Your task to perform on an android device: set default search engine in the chrome app Image 0: 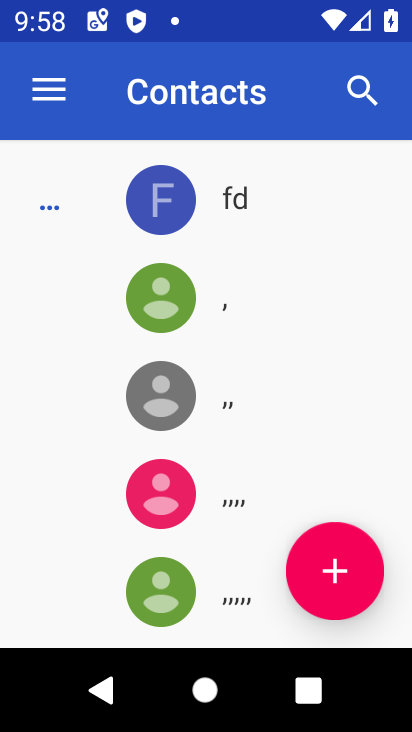
Step 0: press home button
Your task to perform on an android device: set default search engine in the chrome app Image 1: 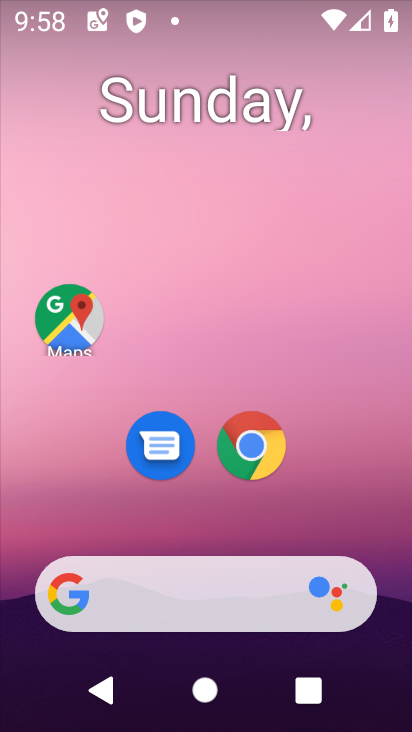
Step 1: click (240, 466)
Your task to perform on an android device: set default search engine in the chrome app Image 2: 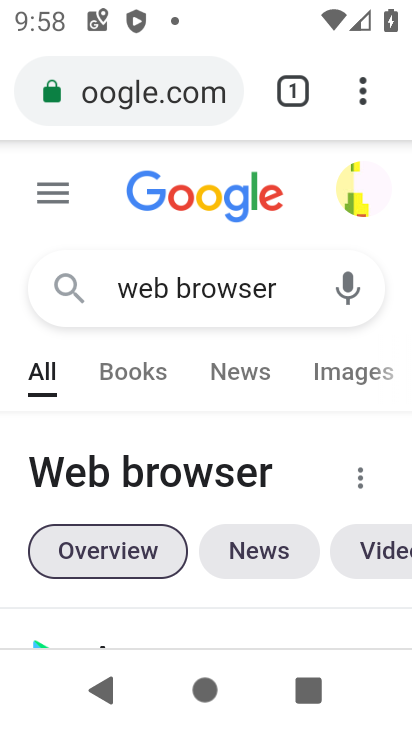
Step 2: drag from (366, 89) to (179, 486)
Your task to perform on an android device: set default search engine in the chrome app Image 3: 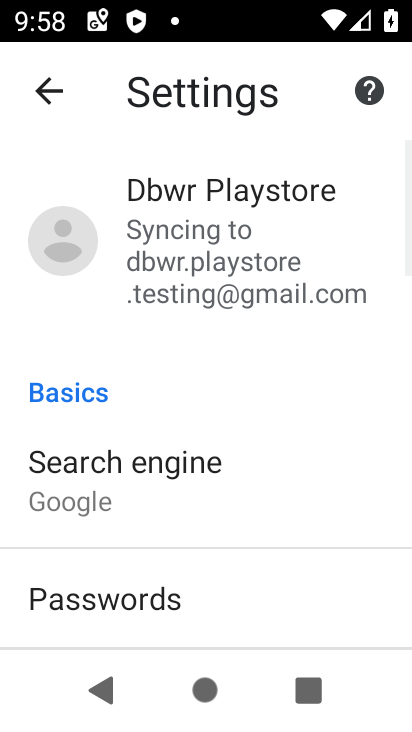
Step 3: click (142, 474)
Your task to perform on an android device: set default search engine in the chrome app Image 4: 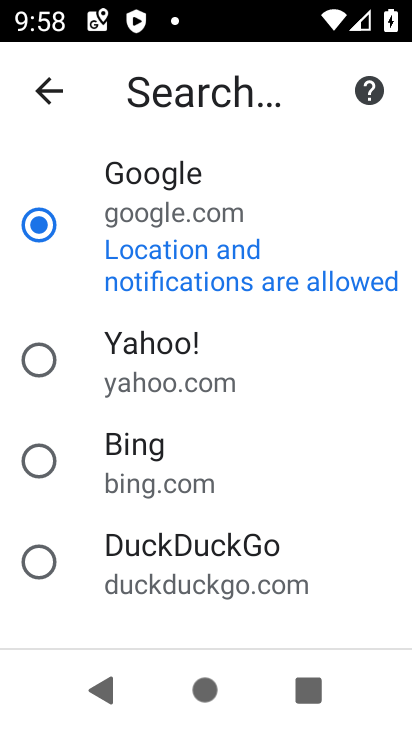
Step 4: task complete